Your task to perform on an android device: Empty the shopping cart on walmart.com. Add "alienware area 51" to the cart on walmart.com, then select checkout. Image 0: 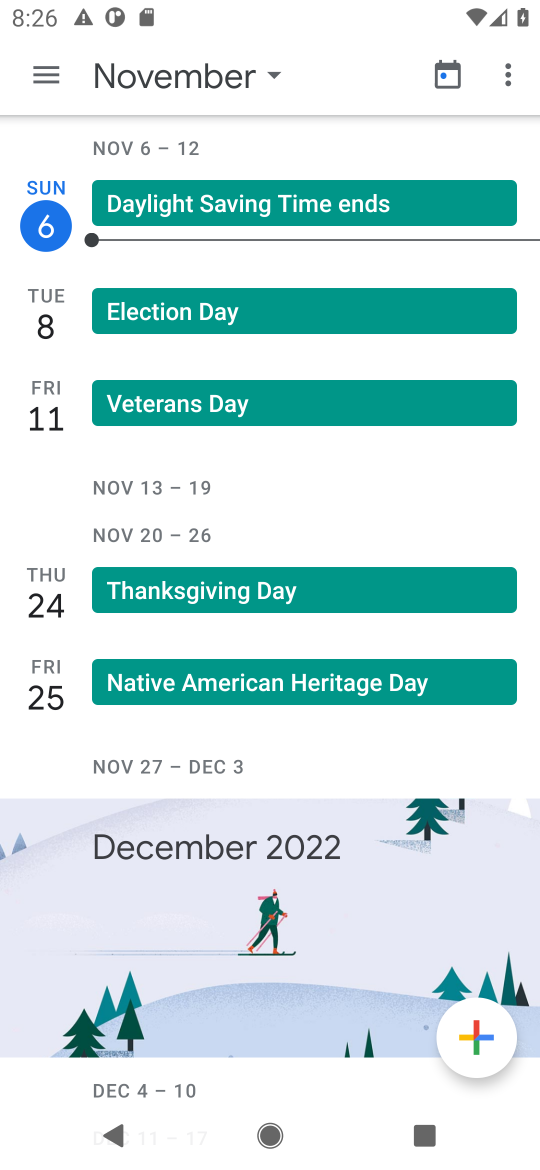
Step 0: press home button
Your task to perform on an android device: Empty the shopping cart on walmart.com. Add "alienware area 51" to the cart on walmart.com, then select checkout. Image 1: 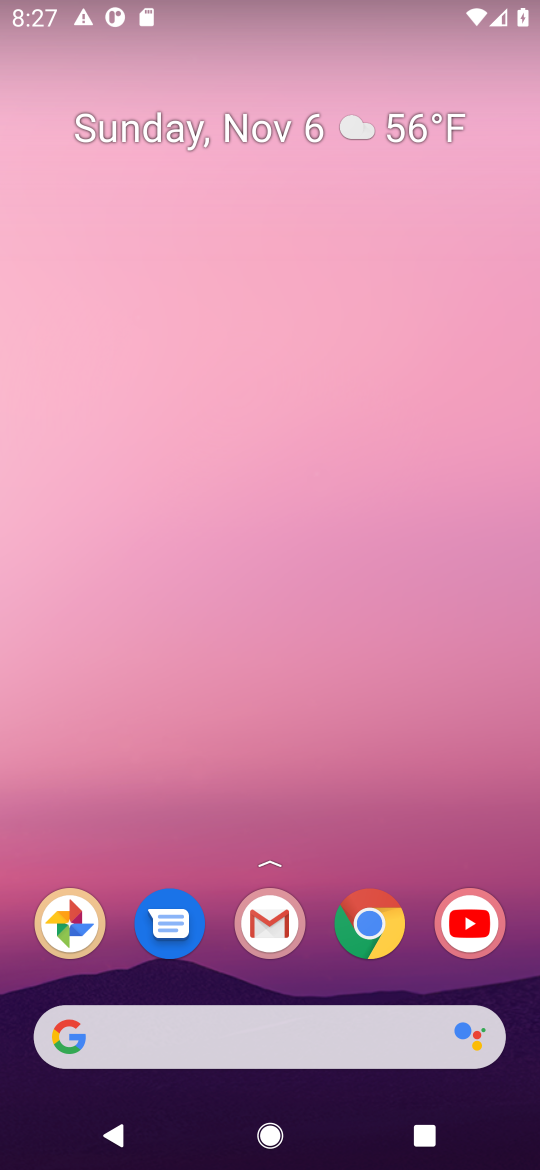
Step 1: click (381, 938)
Your task to perform on an android device: Empty the shopping cart on walmart.com. Add "alienware area 51" to the cart on walmart.com, then select checkout. Image 2: 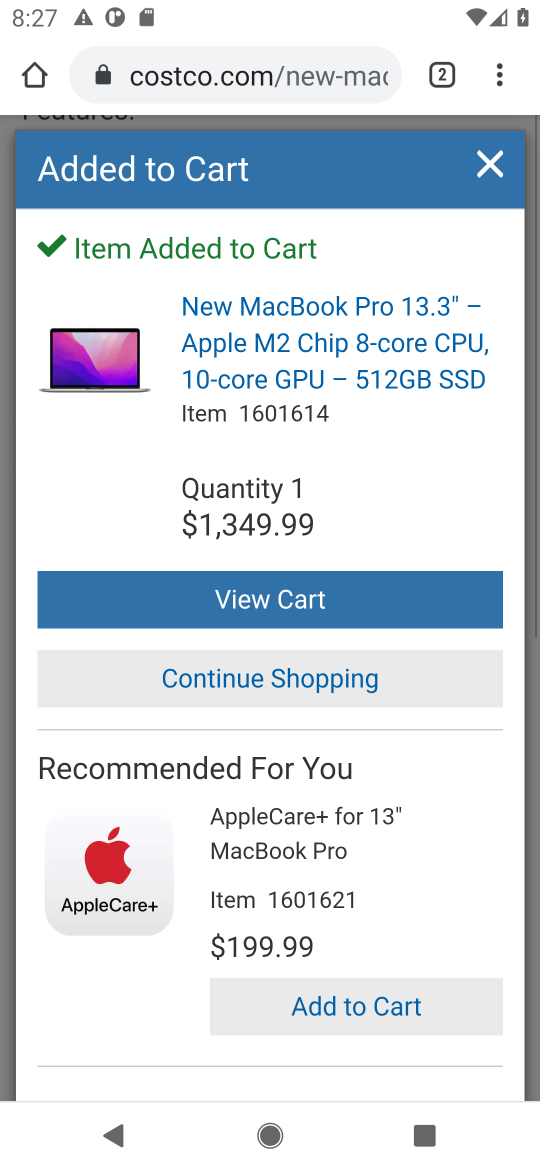
Step 2: click (307, 80)
Your task to perform on an android device: Empty the shopping cart on walmart.com. Add "alienware area 51" to the cart on walmart.com, then select checkout. Image 3: 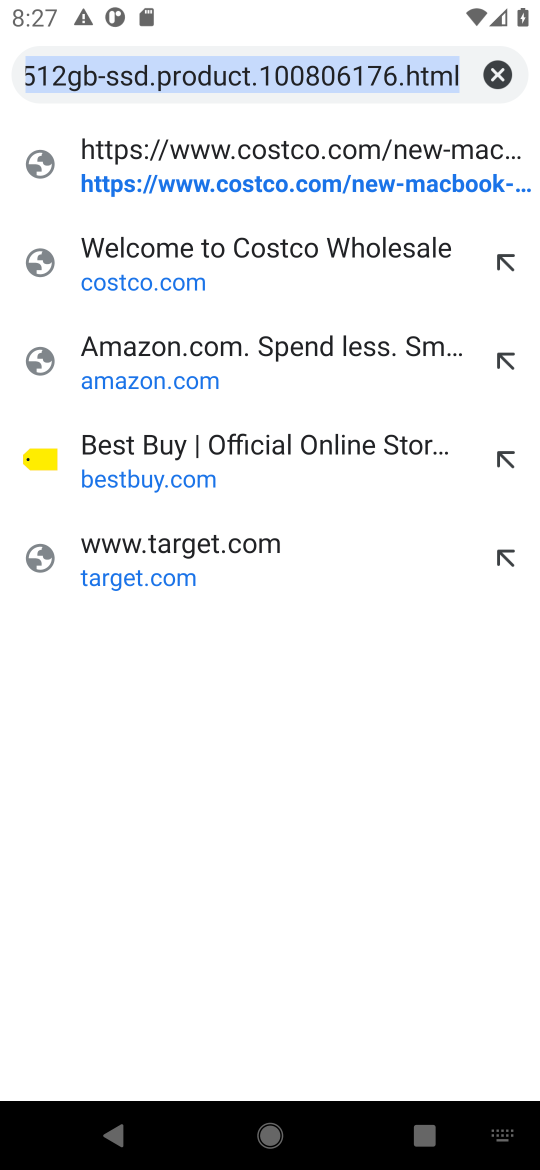
Step 3: click (489, 81)
Your task to perform on an android device: Empty the shopping cart on walmart.com. Add "alienware area 51" to the cart on walmart.com, then select checkout. Image 4: 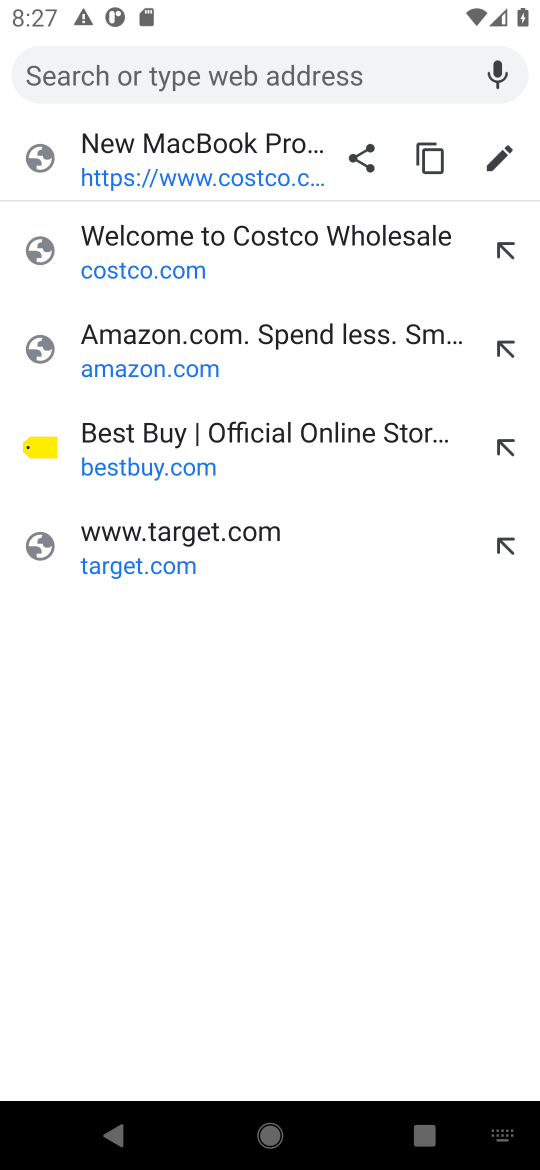
Step 4: type " walmart.com"
Your task to perform on an android device: Empty the shopping cart on walmart.com. Add "alienware area 51" to the cart on walmart.com, then select checkout. Image 5: 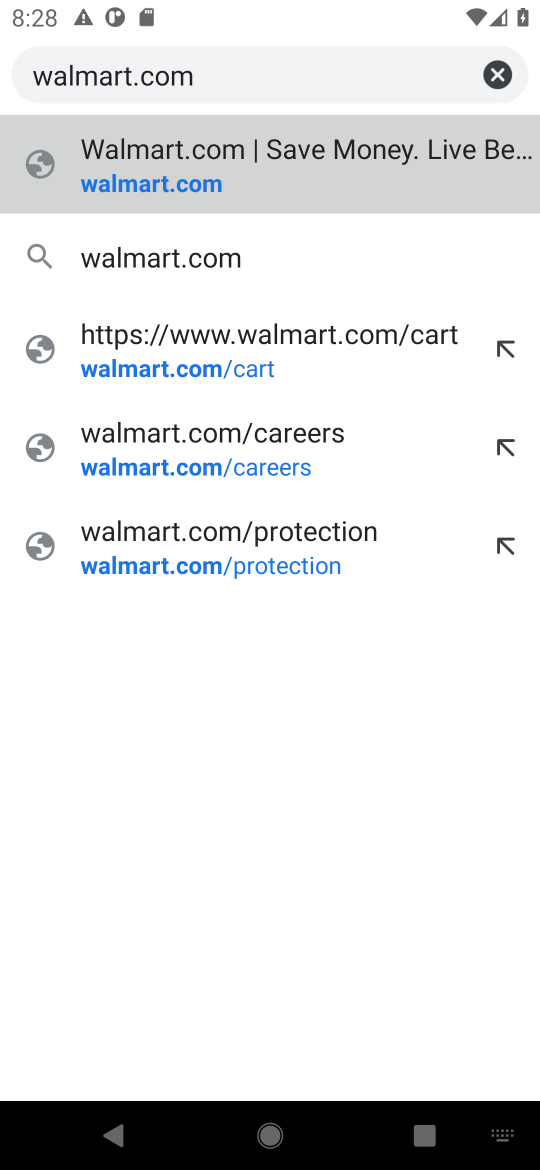
Step 5: click (175, 181)
Your task to perform on an android device: Empty the shopping cart on walmart.com. Add "alienware area 51" to the cart on walmart.com, then select checkout. Image 6: 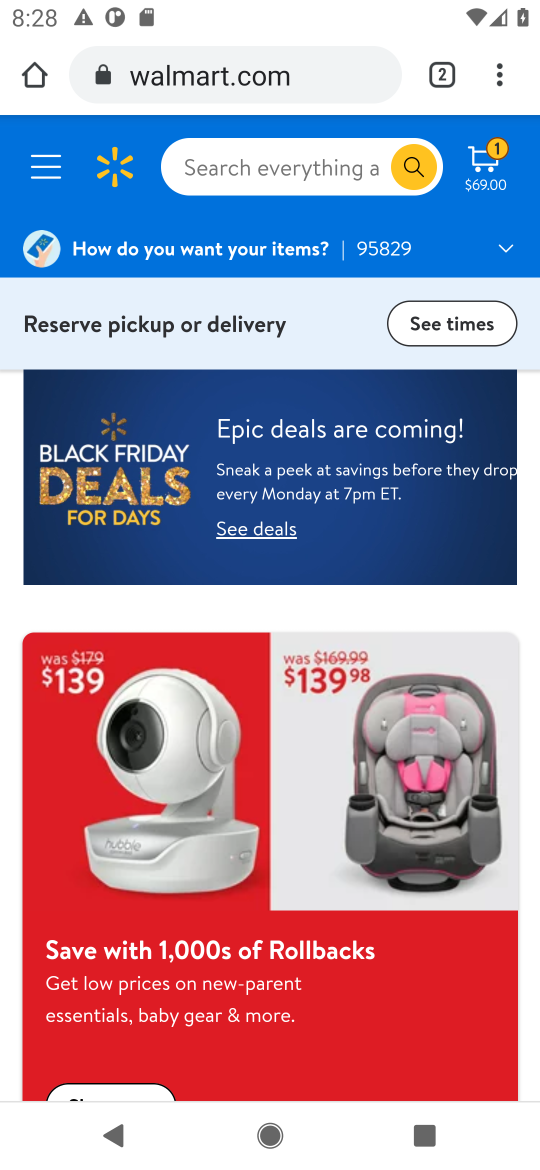
Step 6: click (489, 164)
Your task to perform on an android device: Empty the shopping cart on walmart.com. Add "alienware area 51" to the cart on walmart.com, then select checkout. Image 7: 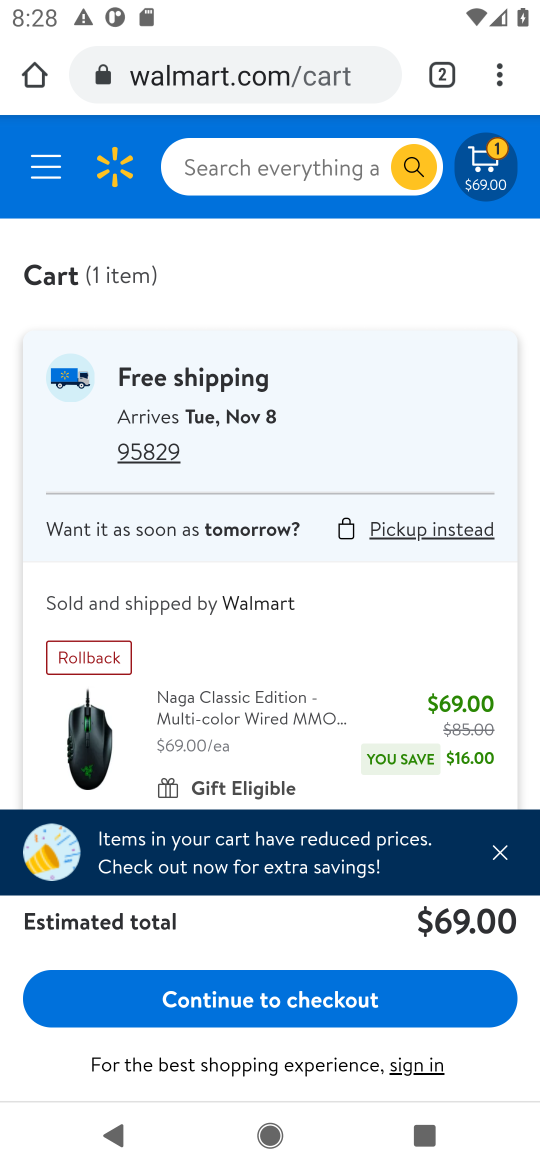
Step 7: click (505, 852)
Your task to perform on an android device: Empty the shopping cart on walmart.com. Add "alienware area 51" to the cart on walmart.com, then select checkout. Image 8: 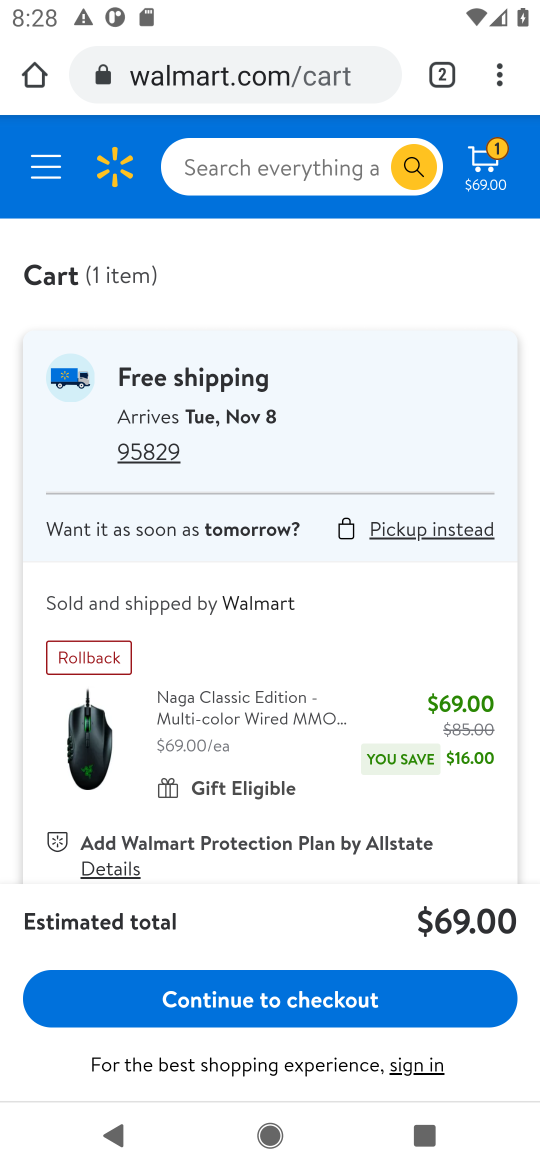
Step 8: drag from (228, 817) to (260, 565)
Your task to perform on an android device: Empty the shopping cart on walmart.com. Add "alienware area 51" to the cart on walmart.com, then select checkout. Image 9: 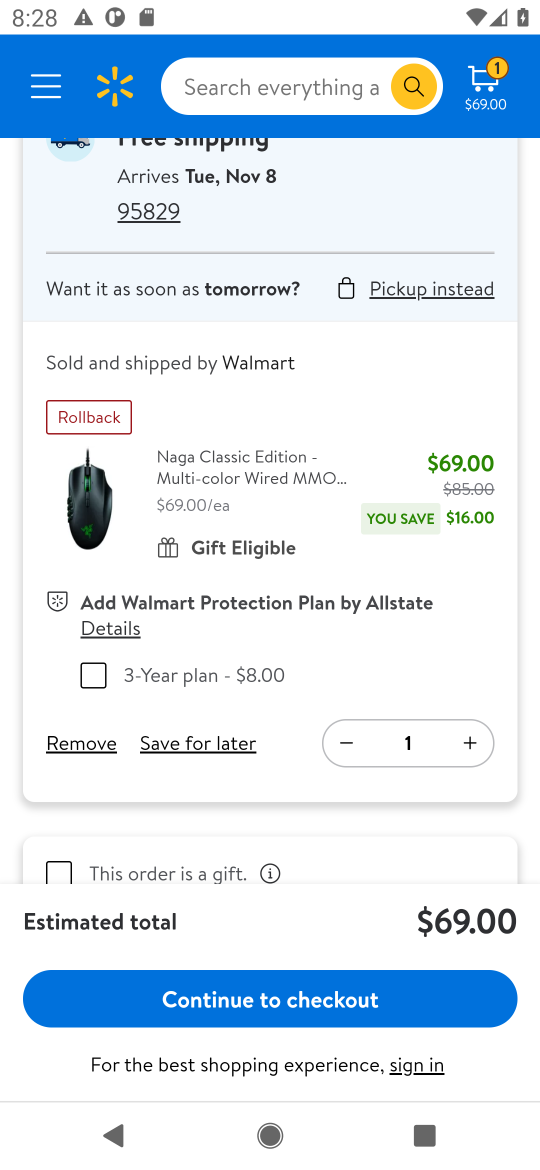
Step 9: click (59, 753)
Your task to perform on an android device: Empty the shopping cart on walmart.com. Add "alienware area 51" to the cart on walmart.com, then select checkout. Image 10: 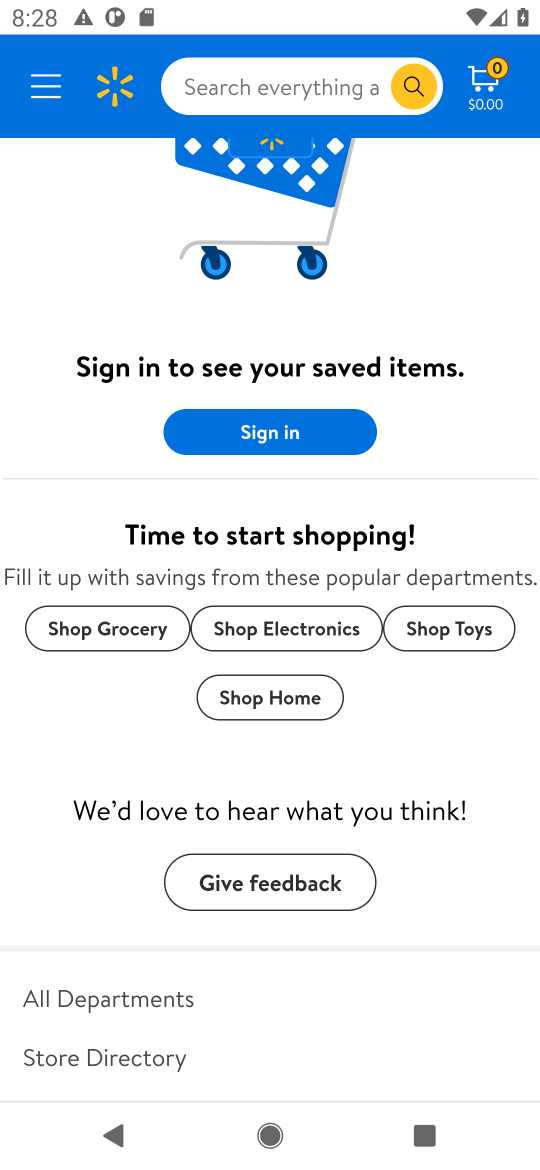
Step 10: click (280, 102)
Your task to perform on an android device: Empty the shopping cart on walmart.com. Add "alienware area 51" to the cart on walmart.com, then select checkout. Image 11: 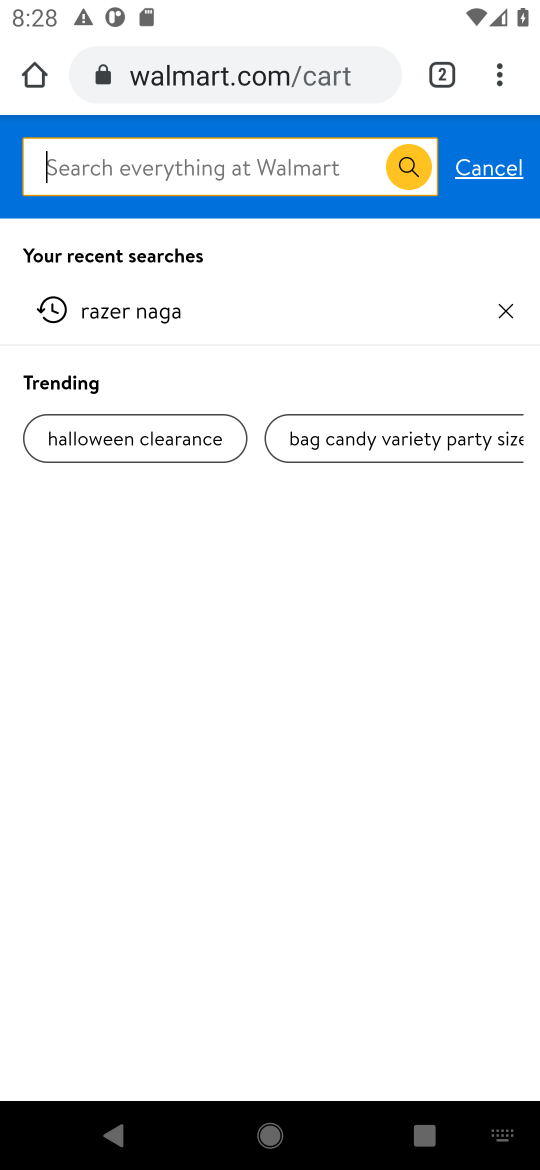
Step 11: type "alienware area 51"
Your task to perform on an android device: Empty the shopping cart on walmart.com. Add "alienware area 51" to the cart on walmart.com, then select checkout. Image 12: 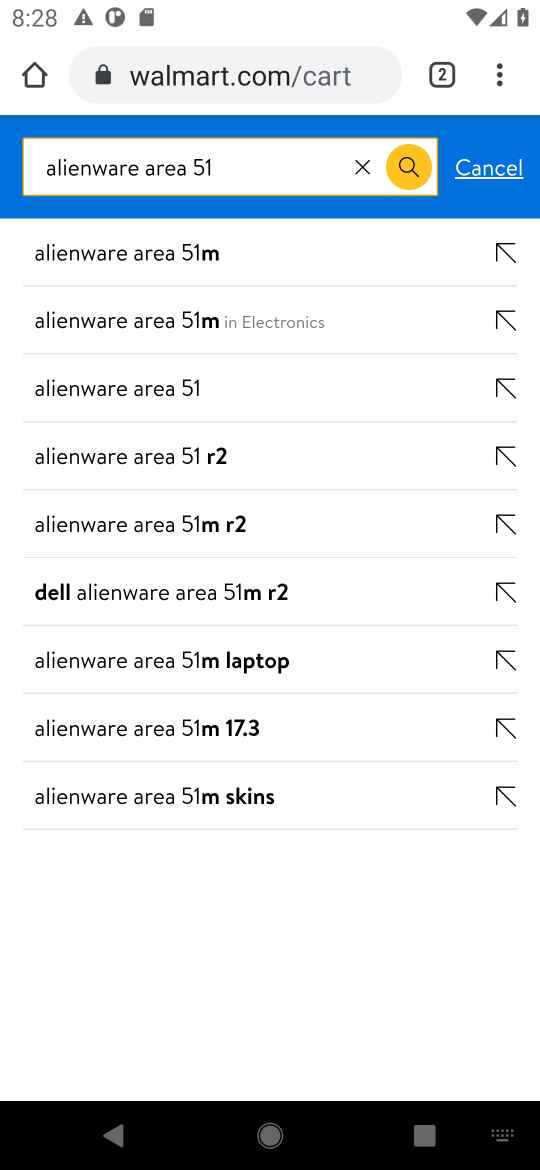
Step 12: click (409, 166)
Your task to perform on an android device: Empty the shopping cart on walmart.com. Add "alienware area 51" to the cart on walmart.com, then select checkout. Image 13: 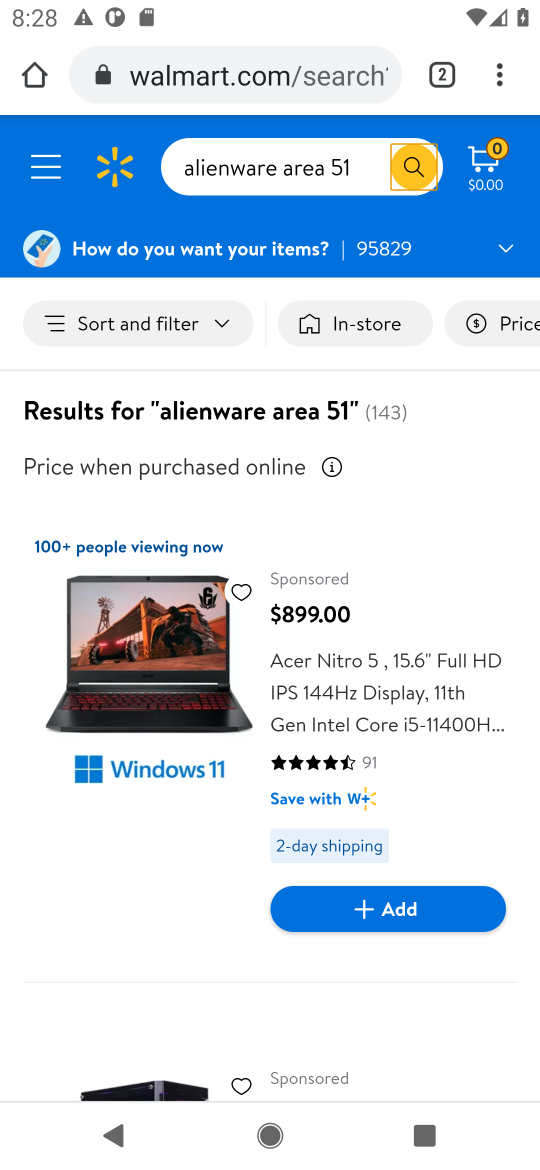
Step 13: drag from (210, 806) to (216, 402)
Your task to perform on an android device: Empty the shopping cart on walmart.com. Add "alienware area 51" to the cart on walmart.com, then select checkout. Image 14: 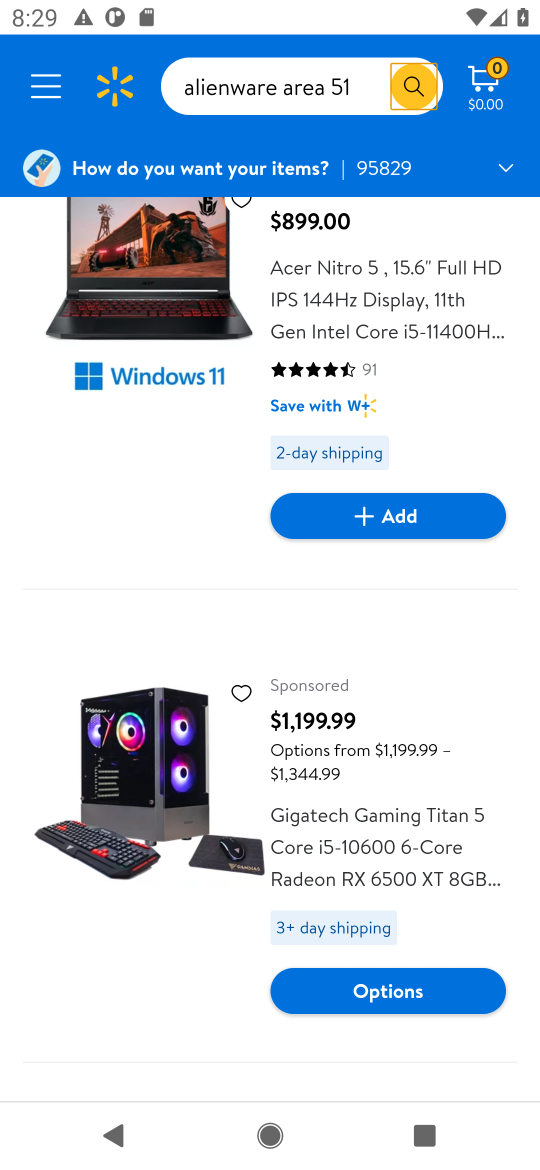
Step 14: drag from (230, 908) to (255, 226)
Your task to perform on an android device: Empty the shopping cart on walmart.com. Add "alienware area 51" to the cart on walmart.com, then select checkout. Image 15: 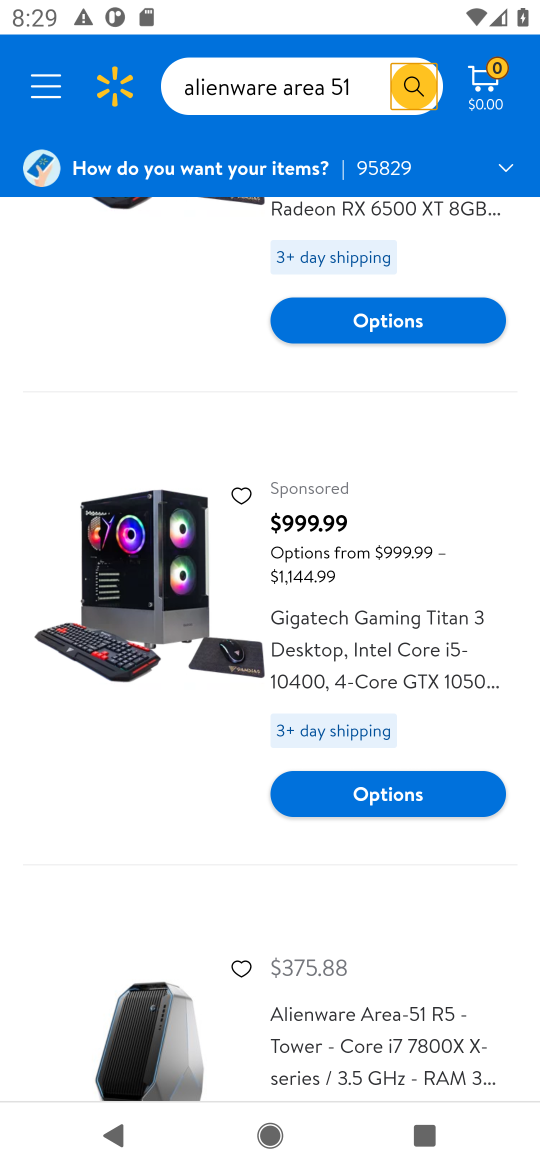
Step 15: drag from (252, 980) to (252, 628)
Your task to perform on an android device: Empty the shopping cart on walmart.com. Add "alienware area 51" to the cart on walmart.com, then select checkout. Image 16: 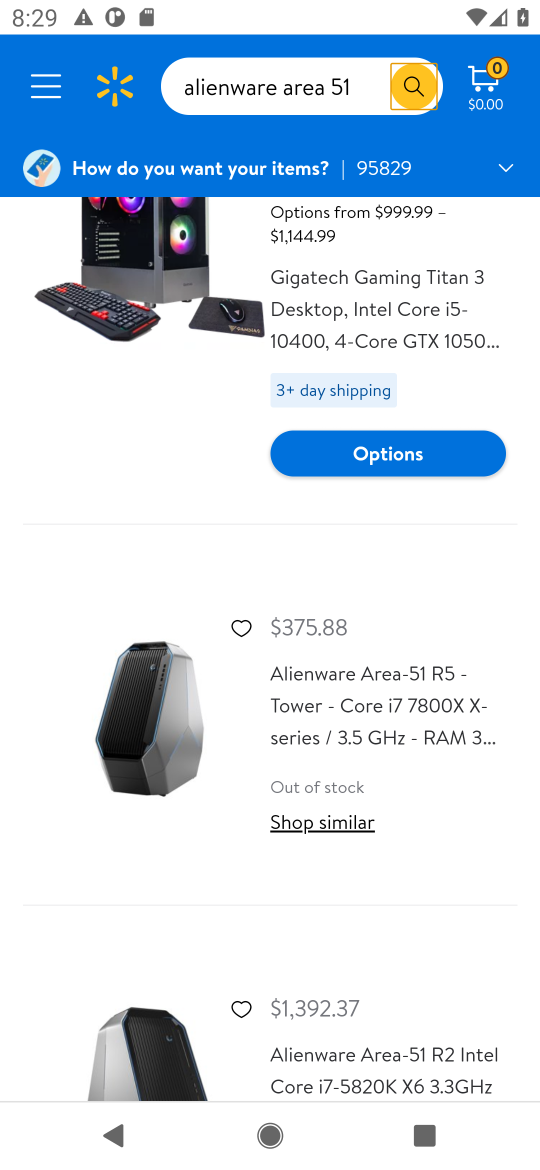
Step 16: drag from (221, 837) to (197, 378)
Your task to perform on an android device: Empty the shopping cart on walmart.com. Add "alienware area 51" to the cart on walmart.com, then select checkout. Image 17: 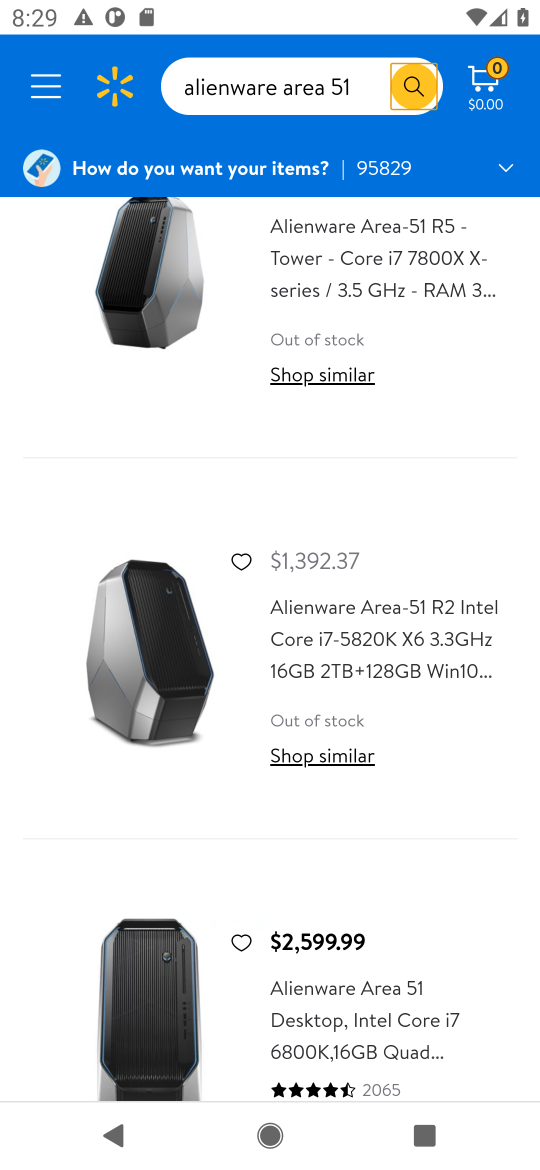
Step 17: drag from (191, 804) to (173, 312)
Your task to perform on an android device: Empty the shopping cart on walmart.com. Add "alienware area 51" to the cart on walmart.com, then select checkout. Image 18: 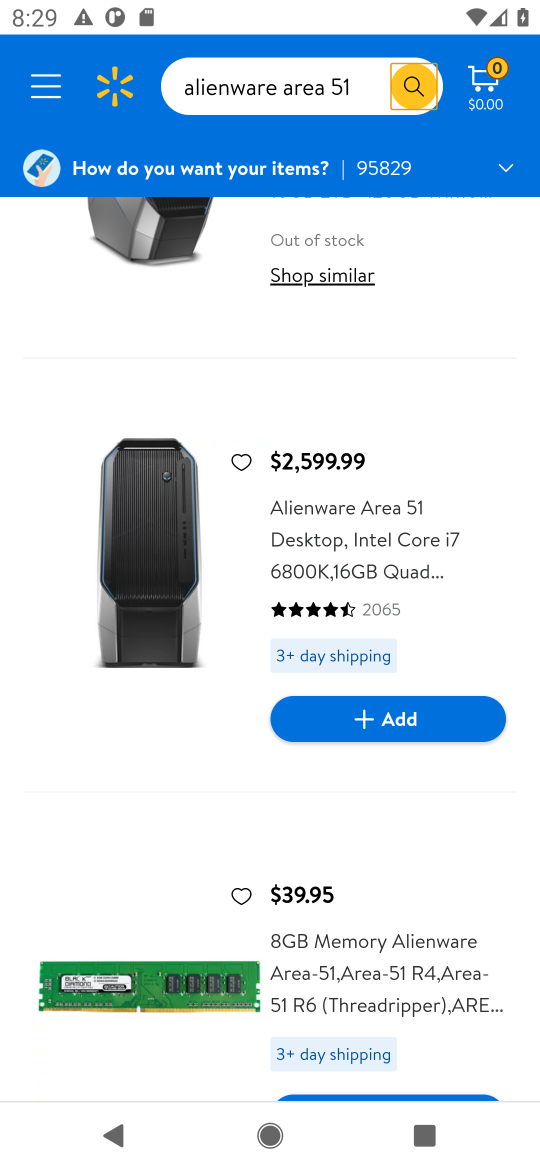
Step 18: click (306, 556)
Your task to perform on an android device: Empty the shopping cart on walmart.com. Add "alienware area 51" to the cart on walmart.com, then select checkout. Image 19: 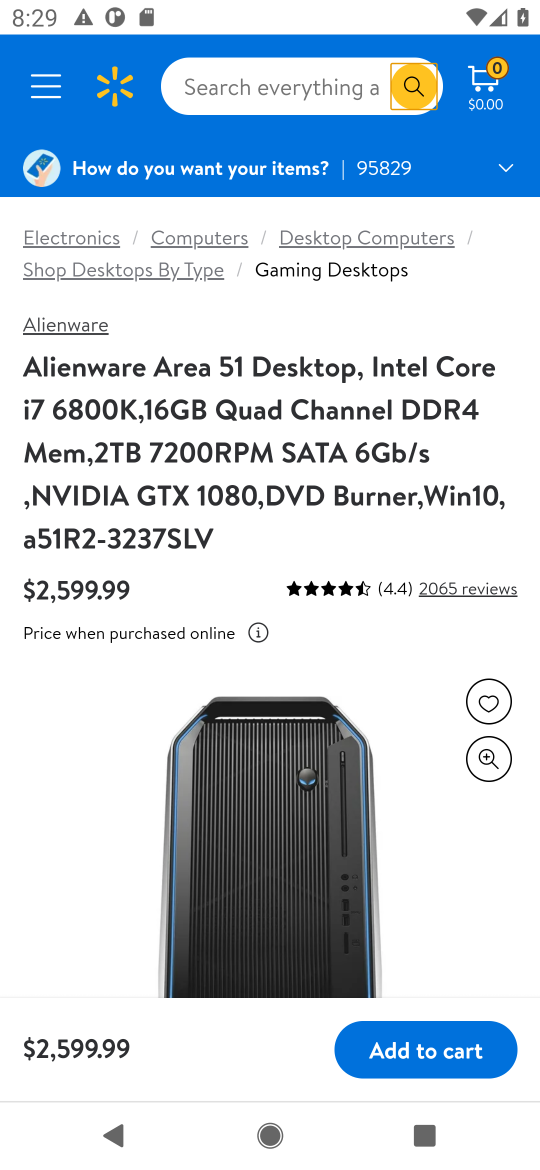
Step 19: click (431, 1063)
Your task to perform on an android device: Empty the shopping cart on walmart.com. Add "alienware area 51" to the cart on walmart.com, then select checkout. Image 20: 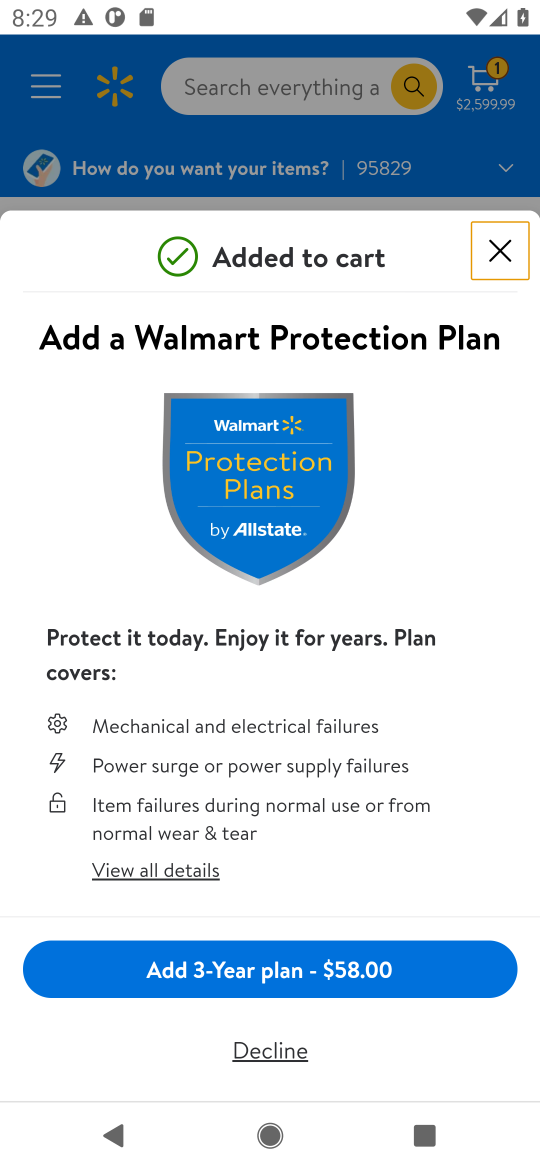
Step 20: click (502, 81)
Your task to perform on an android device: Empty the shopping cart on walmart.com. Add "alienware area 51" to the cart on walmart.com, then select checkout. Image 21: 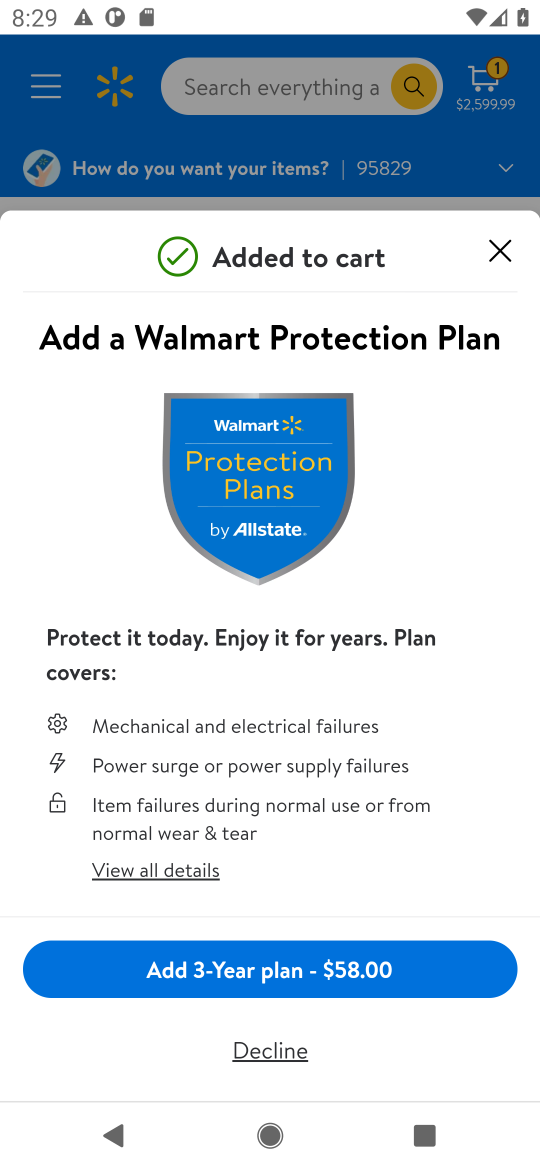
Step 21: click (499, 242)
Your task to perform on an android device: Empty the shopping cart on walmart.com. Add "alienware area 51" to the cart on walmart.com, then select checkout. Image 22: 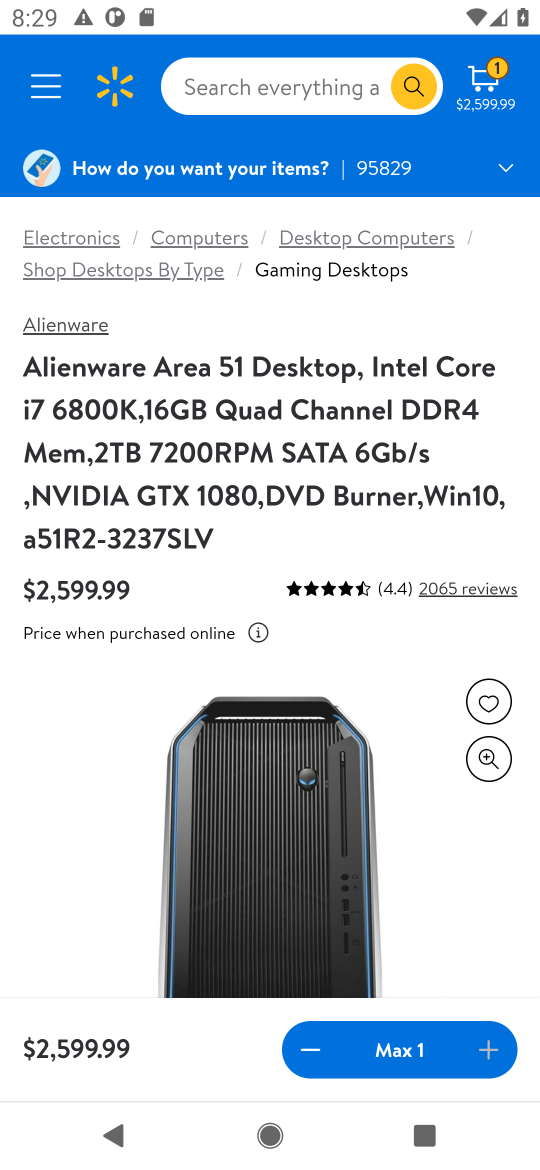
Step 22: click (481, 74)
Your task to perform on an android device: Empty the shopping cart on walmart.com. Add "alienware area 51" to the cart on walmart.com, then select checkout. Image 23: 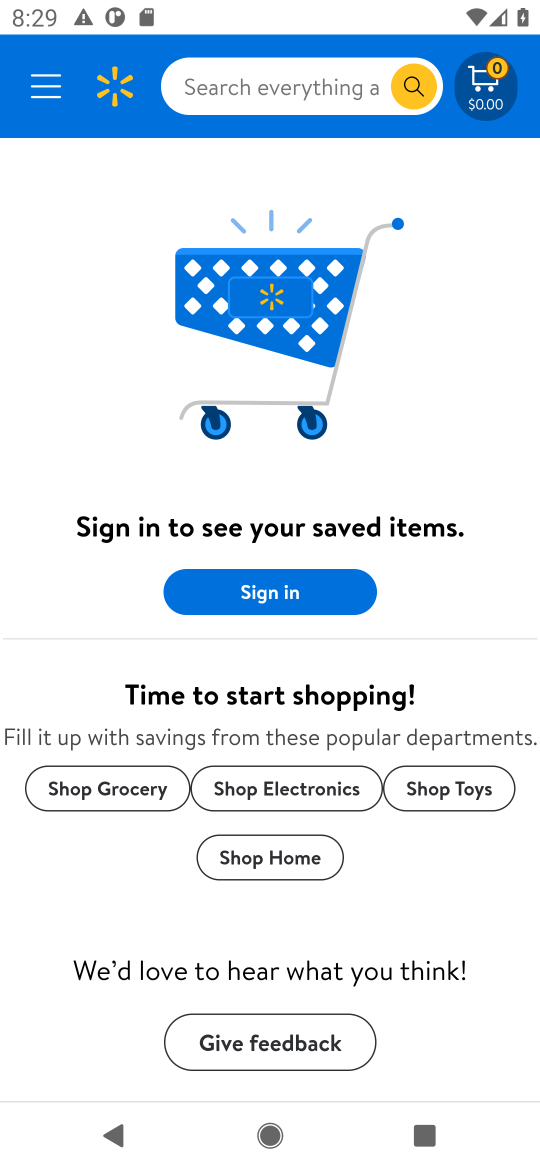
Step 23: drag from (418, 447) to (397, 739)
Your task to perform on an android device: Empty the shopping cart on walmart.com. Add "alienware area 51" to the cart on walmart.com, then select checkout. Image 24: 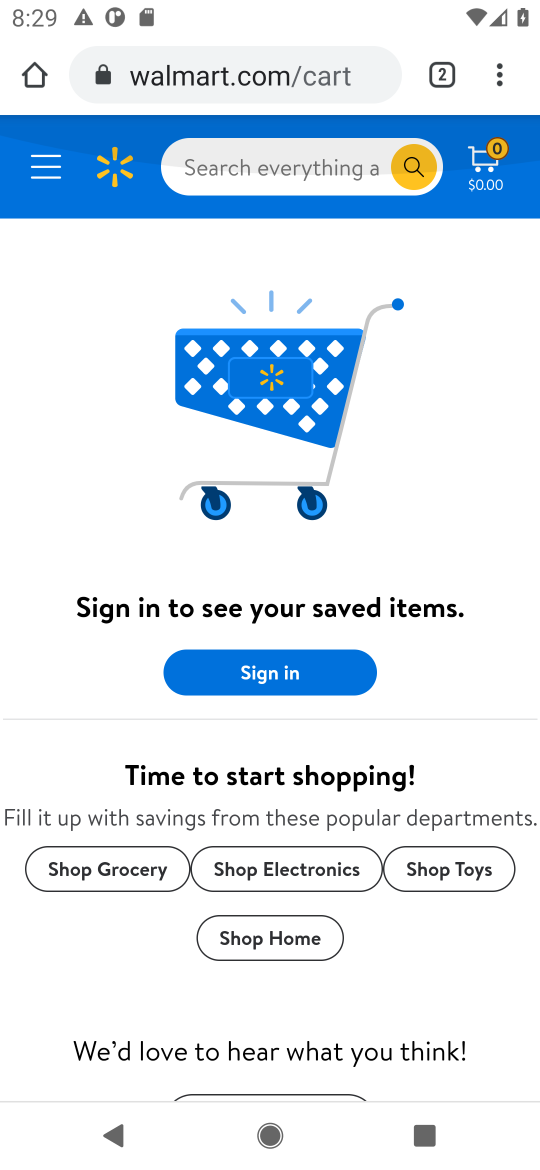
Step 24: drag from (396, 737) to (449, 517)
Your task to perform on an android device: Empty the shopping cart on walmart.com. Add "alienware area 51" to the cart on walmart.com, then select checkout. Image 25: 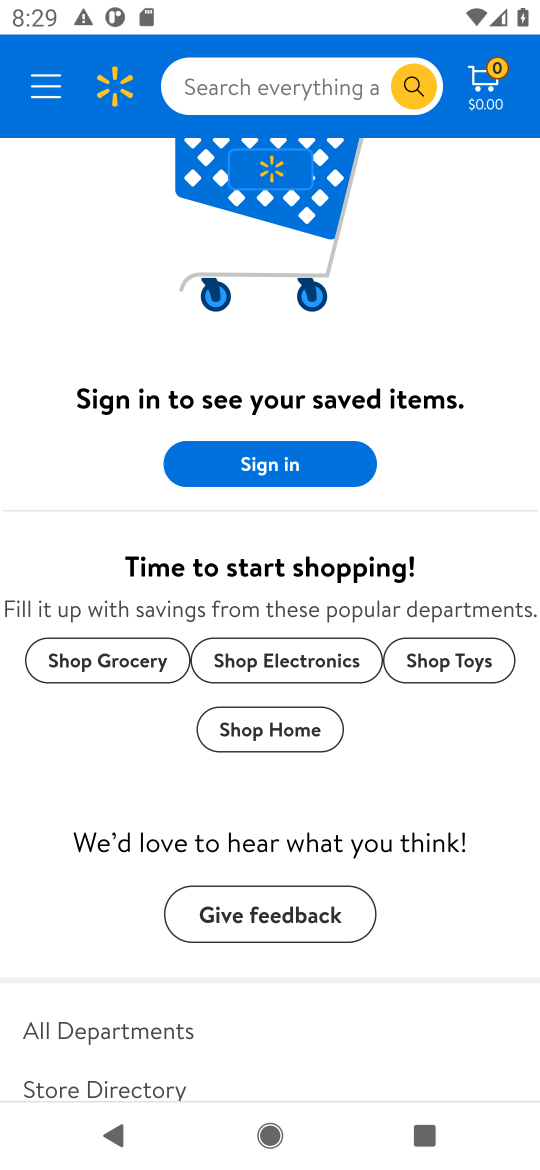
Step 25: drag from (448, 362) to (428, 551)
Your task to perform on an android device: Empty the shopping cart on walmart.com. Add "alienware area 51" to the cart on walmart.com, then select checkout. Image 26: 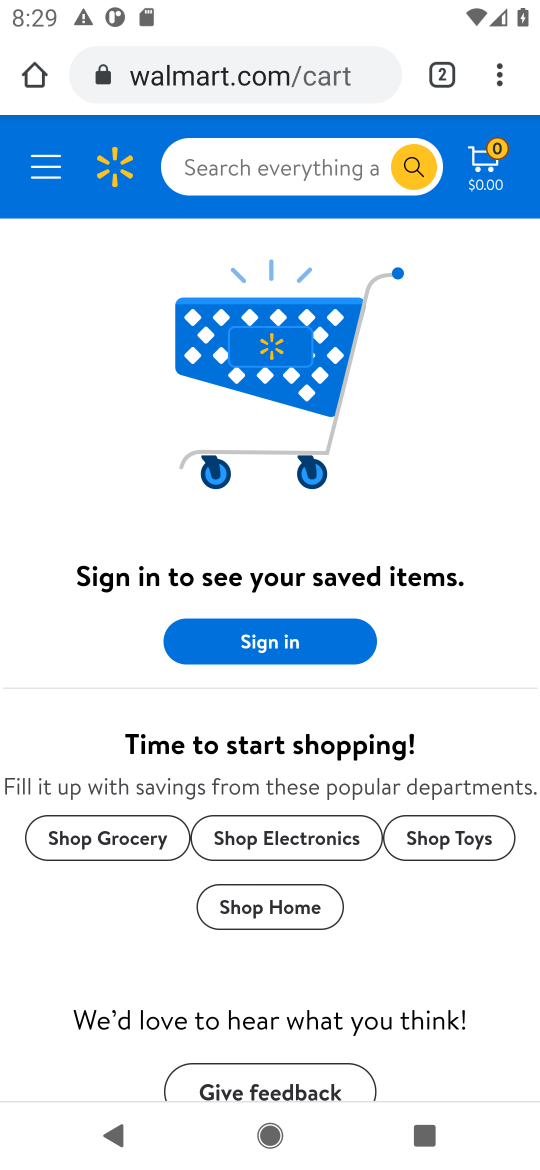
Step 26: click (275, 161)
Your task to perform on an android device: Empty the shopping cart on walmart.com. Add "alienware area 51" to the cart on walmart.com, then select checkout. Image 27: 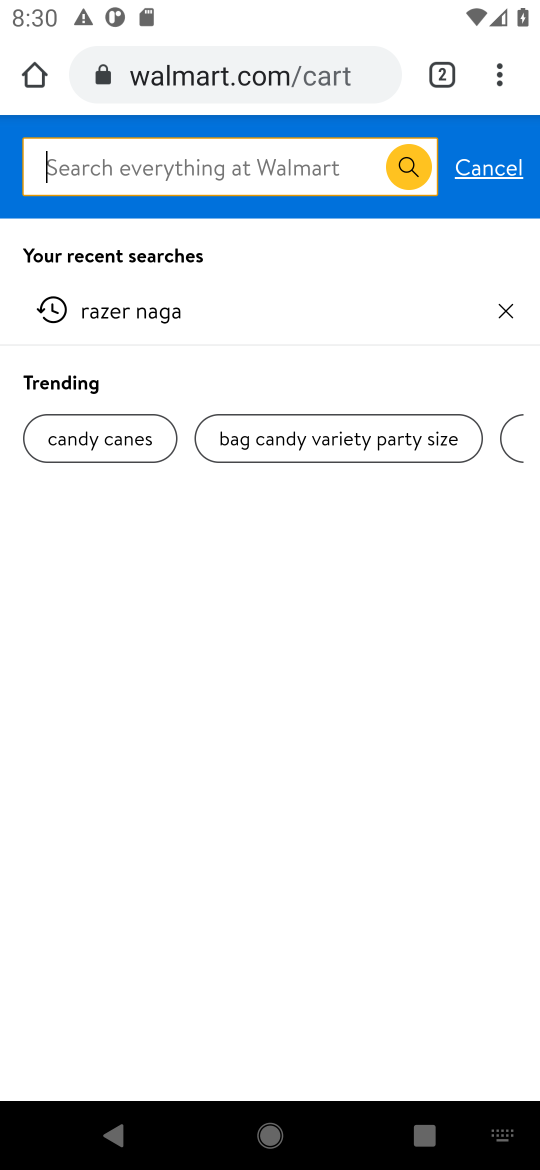
Step 27: type "alienware area 51"
Your task to perform on an android device: Empty the shopping cart on walmart.com. Add "alienware area 51" to the cart on walmart.com, then select checkout. Image 28: 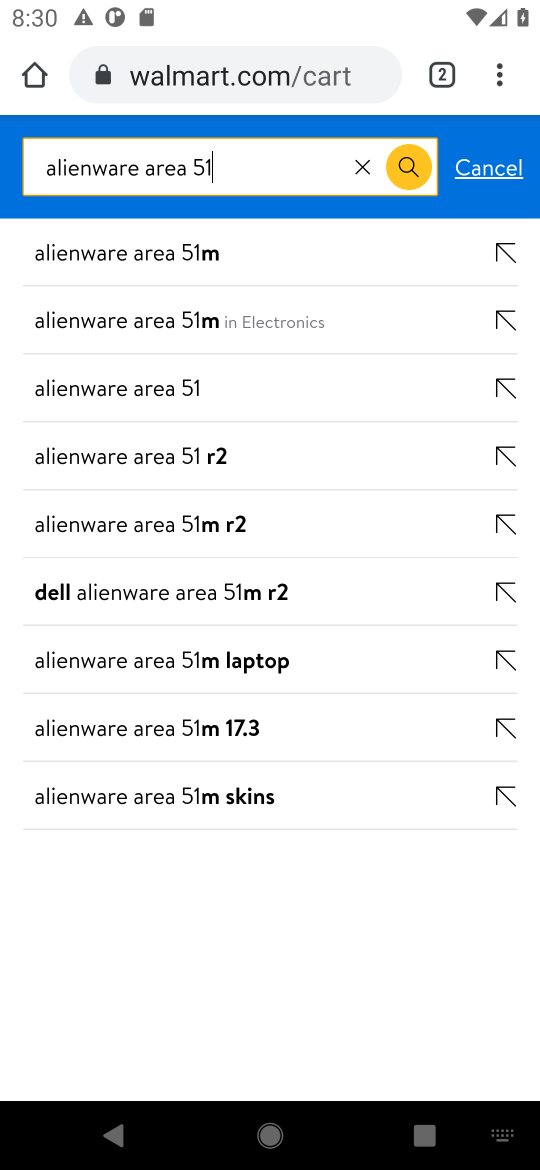
Step 28: click (174, 389)
Your task to perform on an android device: Empty the shopping cart on walmart.com. Add "alienware area 51" to the cart on walmart.com, then select checkout. Image 29: 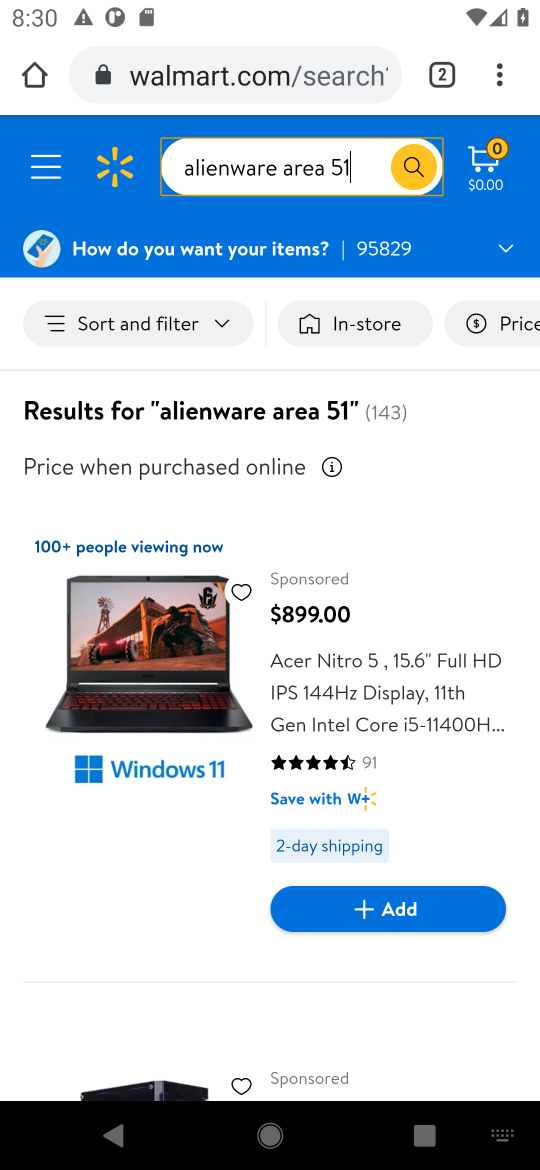
Step 29: drag from (187, 859) to (210, 229)
Your task to perform on an android device: Empty the shopping cart on walmart.com. Add "alienware area 51" to the cart on walmart.com, then select checkout. Image 30: 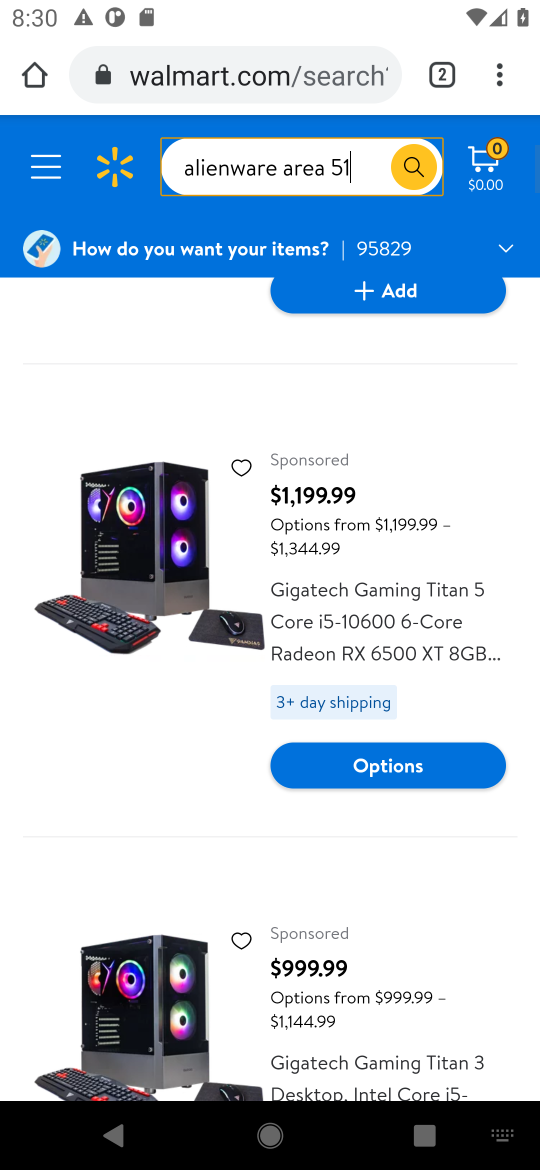
Step 30: drag from (157, 776) to (179, 199)
Your task to perform on an android device: Empty the shopping cart on walmart.com. Add "alienware area 51" to the cart on walmart.com, then select checkout. Image 31: 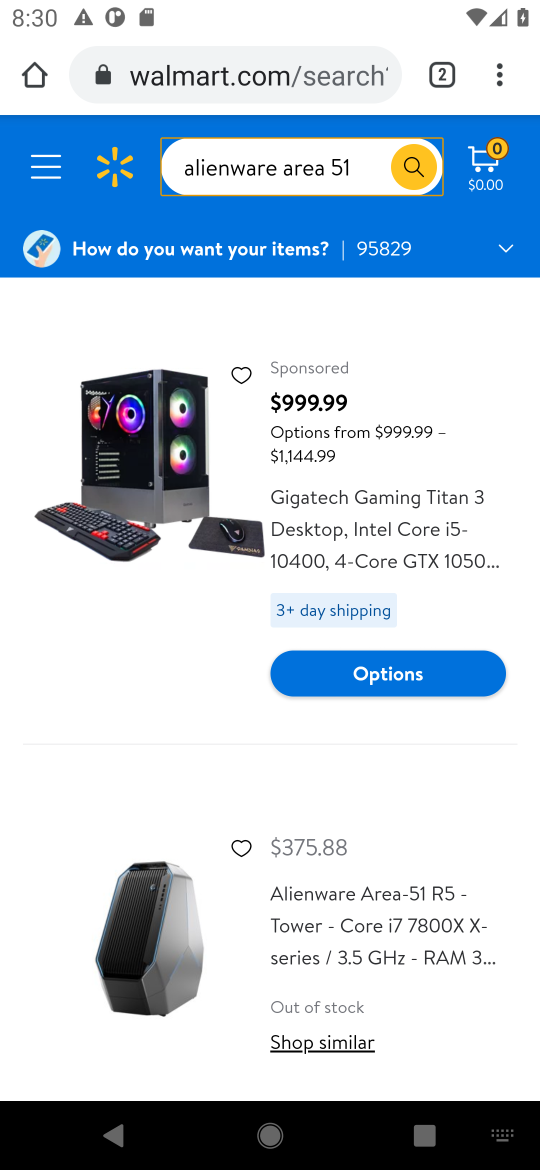
Step 31: drag from (317, 989) to (340, 294)
Your task to perform on an android device: Empty the shopping cart on walmart.com. Add "alienware area 51" to the cart on walmart.com, then select checkout. Image 32: 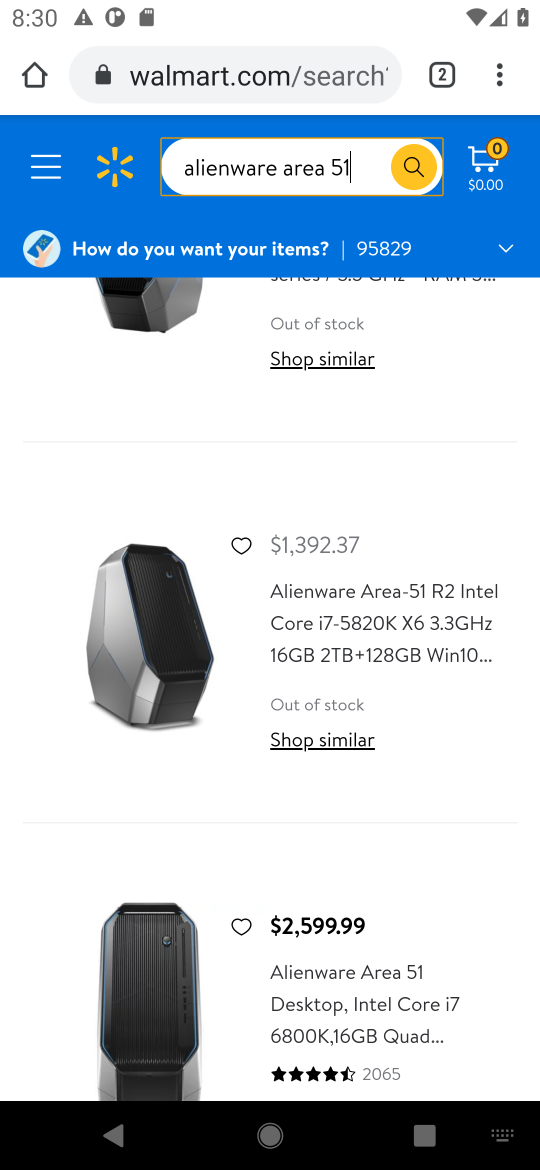
Step 32: drag from (260, 882) to (295, 363)
Your task to perform on an android device: Empty the shopping cart on walmart.com. Add "alienware area 51" to the cart on walmart.com, then select checkout. Image 33: 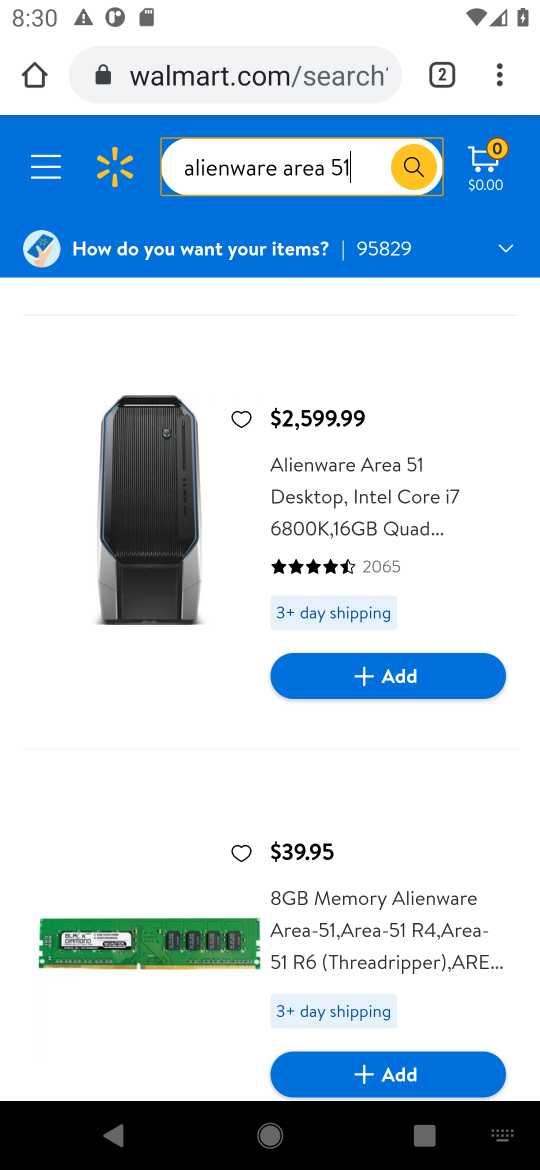
Step 33: click (433, 688)
Your task to perform on an android device: Empty the shopping cart on walmart.com. Add "alienware area 51" to the cart on walmart.com, then select checkout. Image 34: 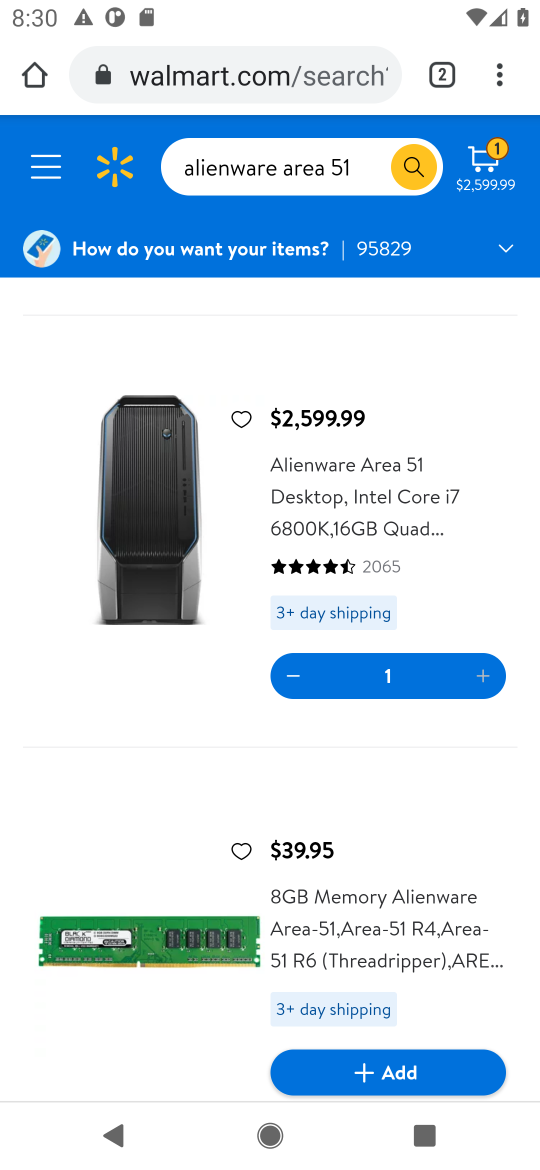
Step 34: click (496, 164)
Your task to perform on an android device: Empty the shopping cart on walmart.com. Add "alienware area 51" to the cart on walmart.com, then select checkout. Image 35: 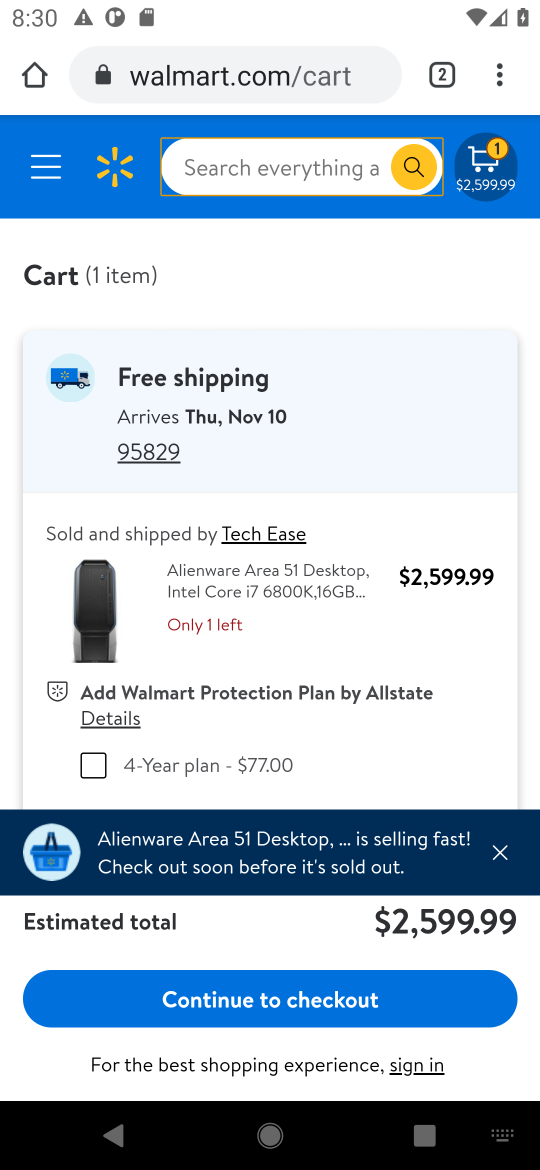
Step 35: click (318, 990)
Your task to perform on an android device: Empty the shopping cart on walmart.com. Add "alienware area 51" to the cart on walmart.com, then select checkout. Image 36: 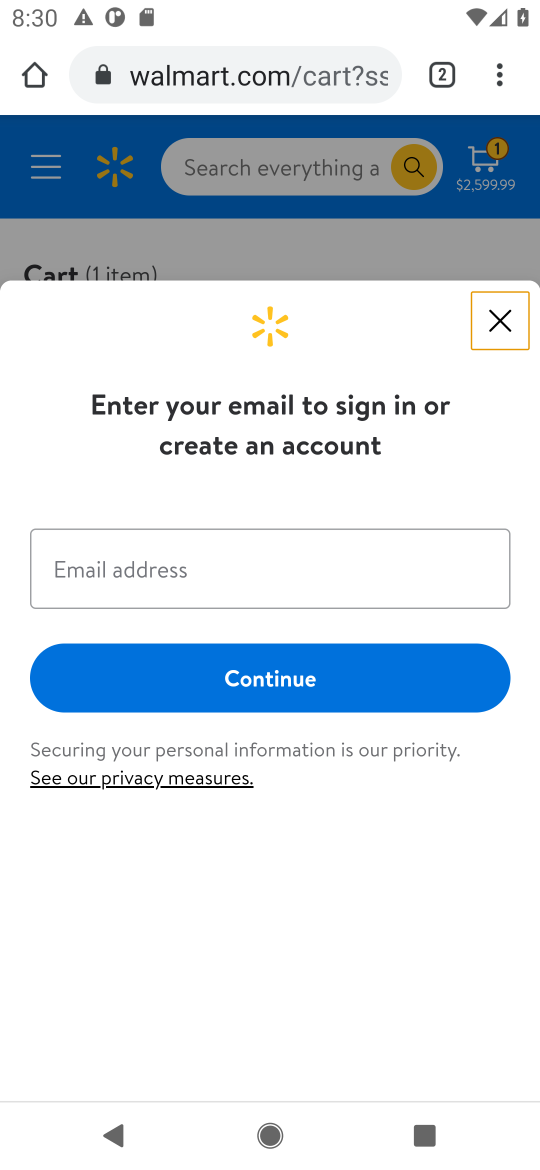
Step 36: task complete